Your task to perform on an android device: Go to network settings Image 0: 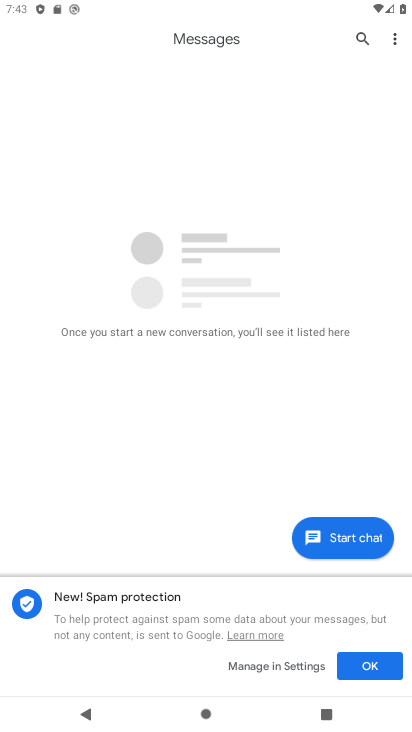
Step 0: press home button
Your task to perform on an android device: Go to network settings Image 1: 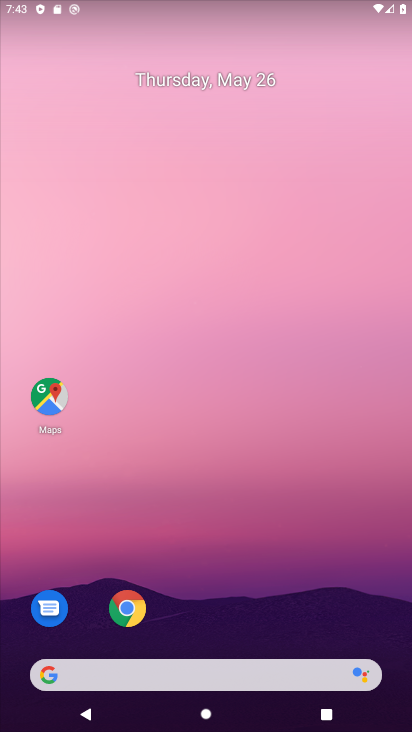
Step 1: drag from (310, 633) to (321, 0)
Your task to perform on an android device: Go to network settings Image 2: 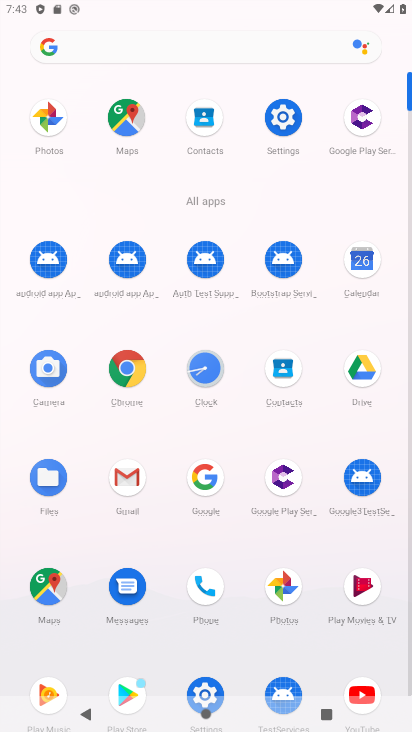
Step 2: click (279, 132)
Your task to perform on an android device: Go to network settings Image 3: 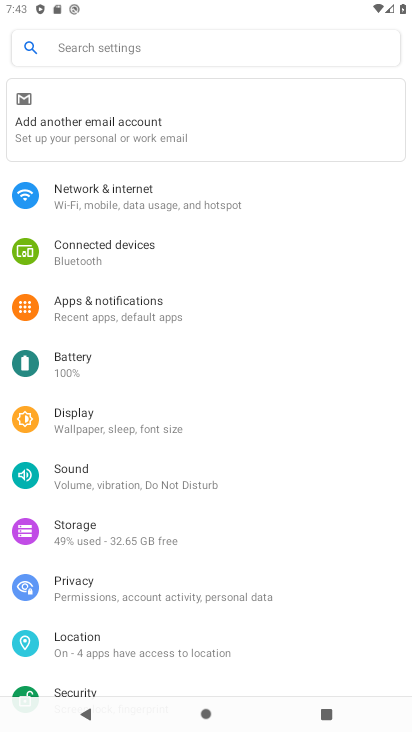
Step 3: click (100, 202)
Your task to perform on an android device: Go to network settings Image 4: 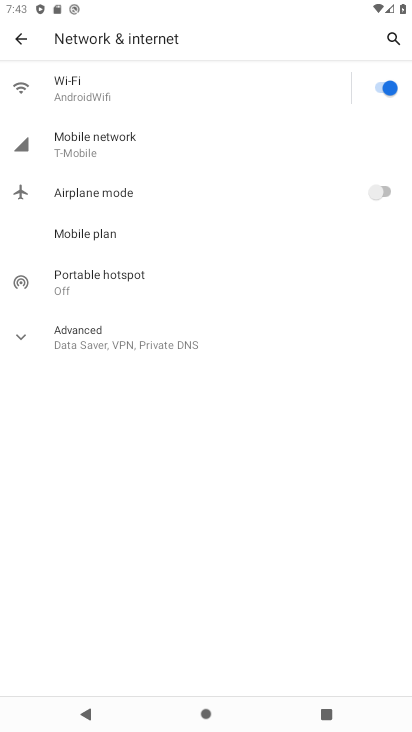
Step 4: click (62, 143)
Your task to perform on an android device: Go to network settings Image 5: 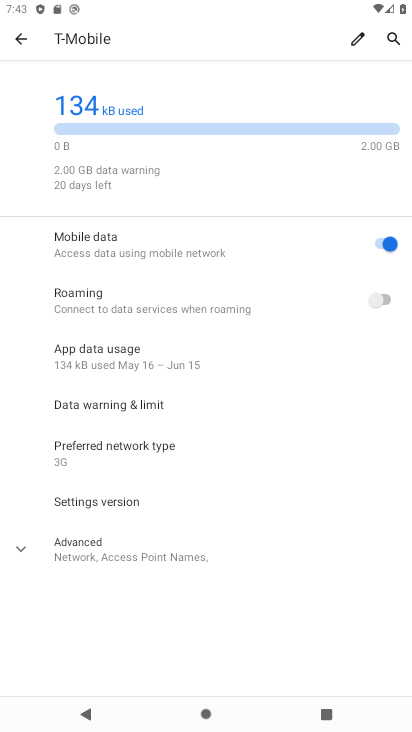
Step 5: click (20, 554)
Your task to perform on an android device: Go to network settings Image 6: 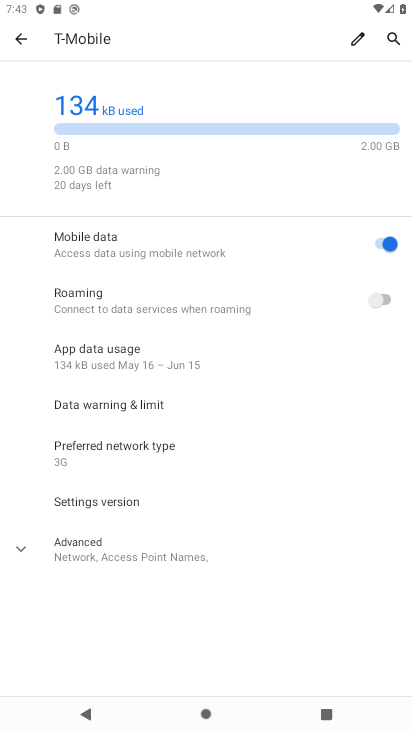
Step 6: click (18, 553)
Your task to perform on an android device: Go to network settings Image 7: 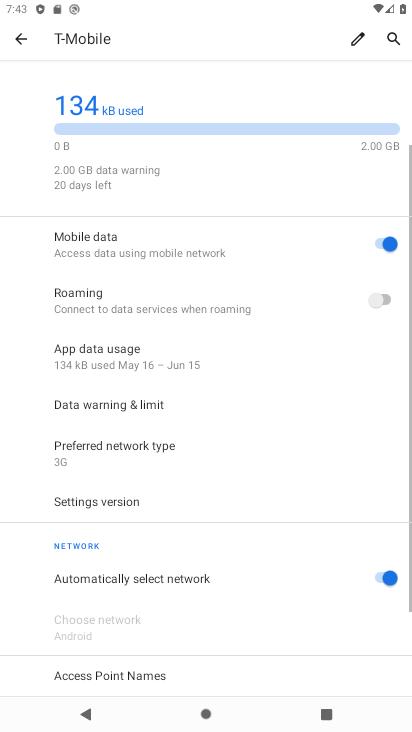
Step 7: task complete